Your task to perform on an android device: toggle sleep mode Image 0: 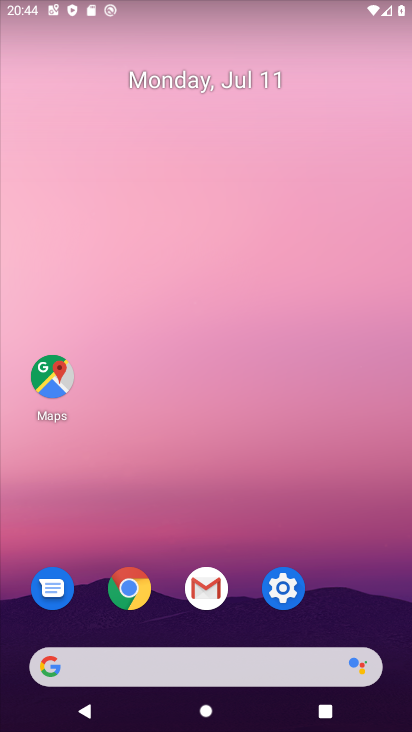
Step 0: click (287, 603)
Your task to perform on an android device: toggle sleep mode Image 1: 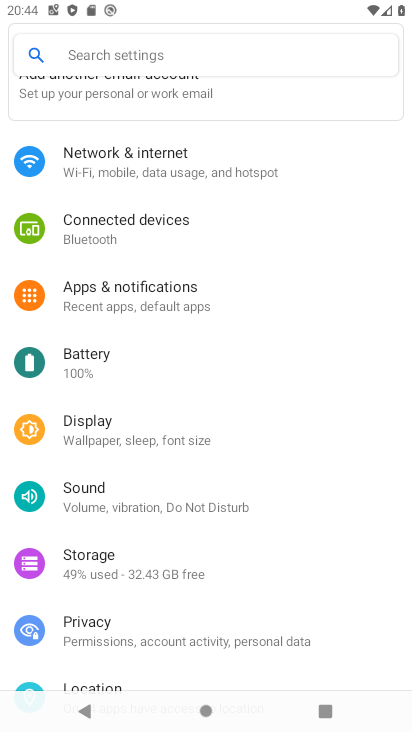
Step 1: click (91, 62)
Your task to perform on an android device: toggle sleep mode Image 2: 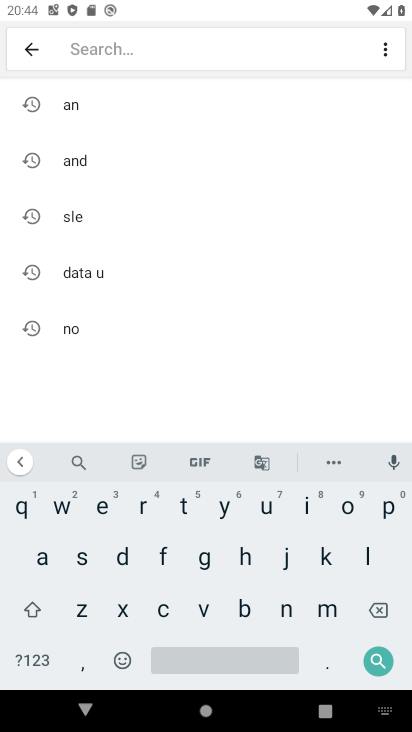
Step 2: click (107, 216)
Your task to perform on an android device: toggle sleep mode Image 3: 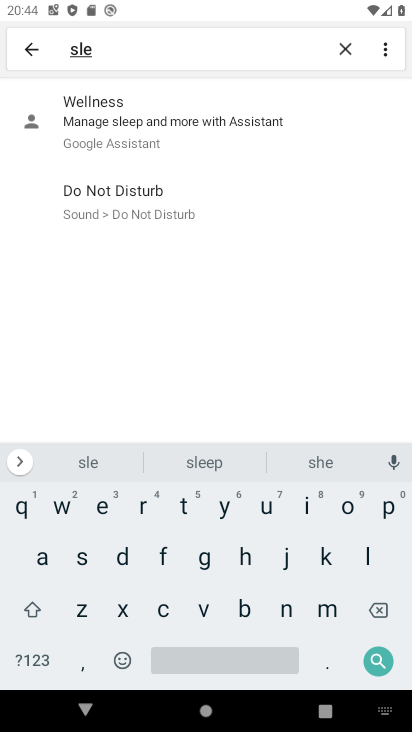
Step 3: click (135, 190)
Your task to perform on an android device: toggle sleep mode Image 4: 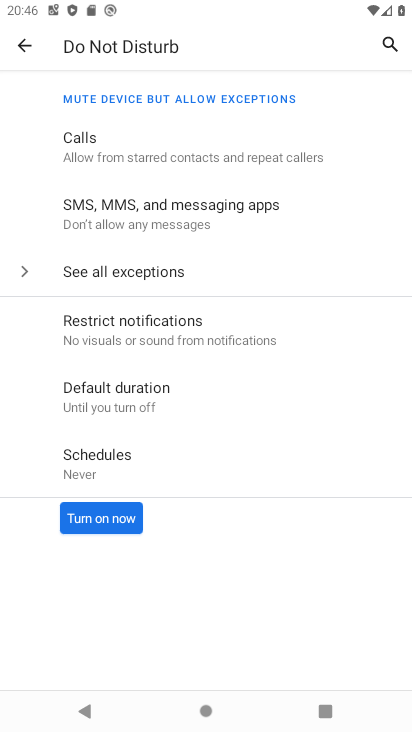
Step 4: task complete